Your task to perform on an android device: Open Reddit.com Image 0: 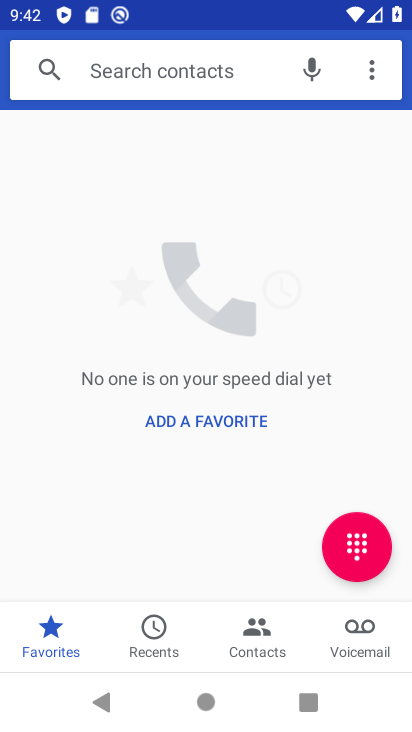
Step 0: press home button
Your task to perform on an android device: Open Reddit.com Image 1: 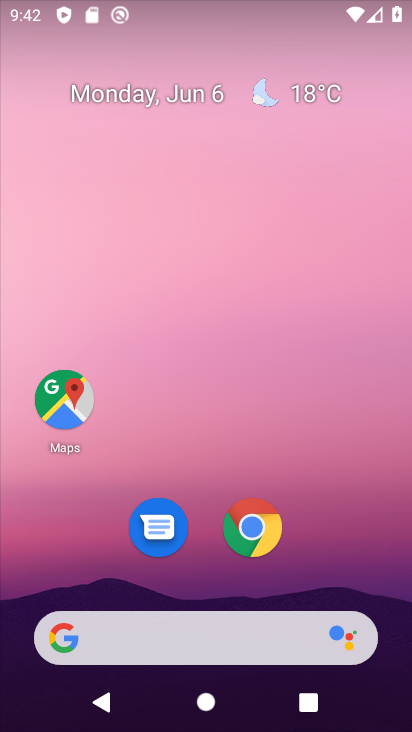
Step 1: click (263, 516)
Your task to perform on an android device: Open Reddit.com Image 2: 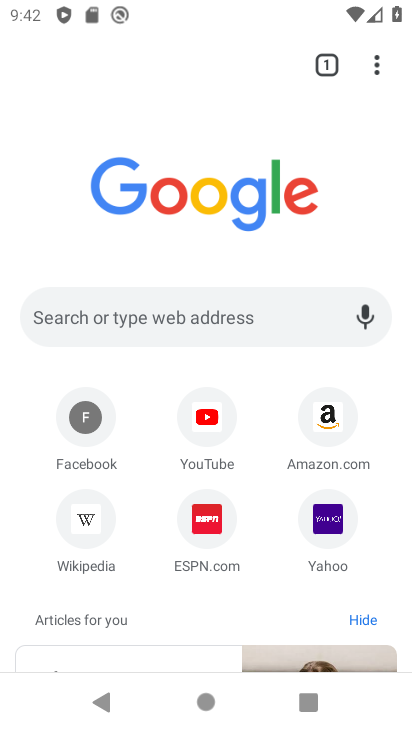
Step 2: click (234, 302)
Your task to perform on an android device: Open Reddit.com Image 3: 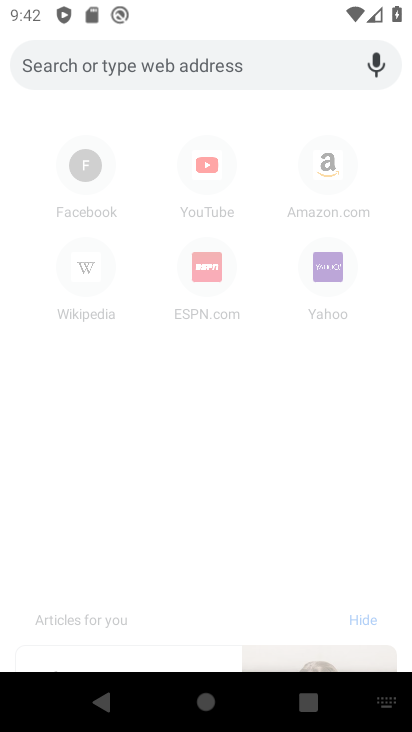
Step 3: type "reddit.com"
Your task to perform on an android device: Open Reddit.com Image 4: 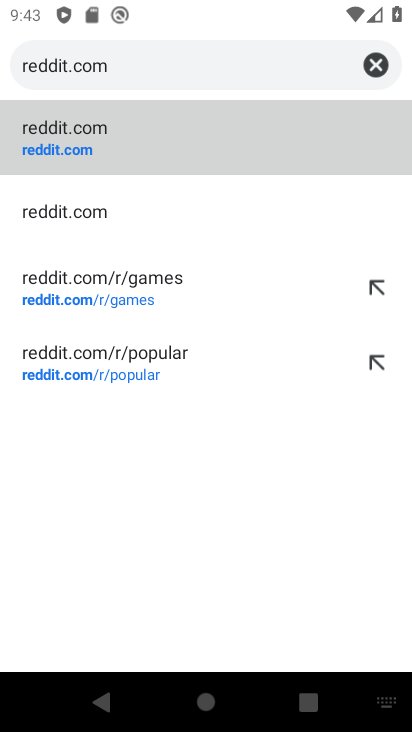
Step 4: click (48, 148)
Your task to perform on an android device: Open Reddit.com Image 5: 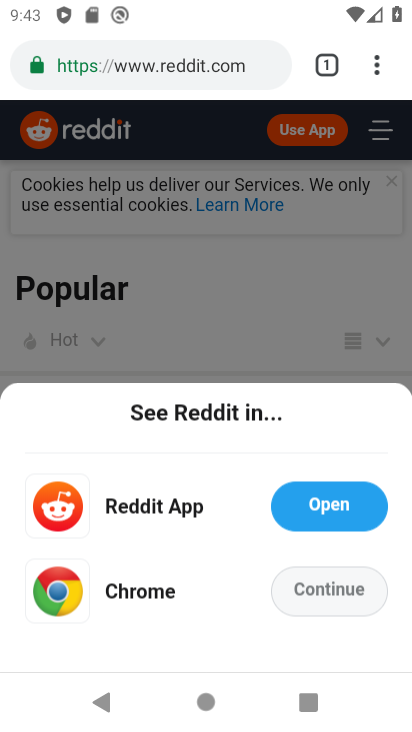
Step 5: task complete